Your task to perform on an android device: Go to Android settings Image 0: 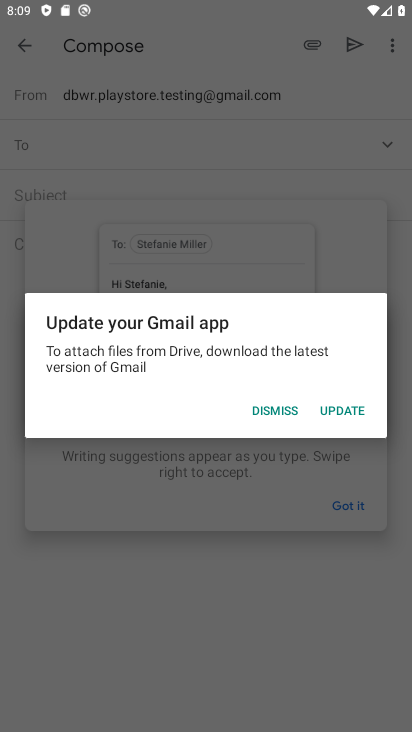
Step 0: press home button
Your task to perform on an android device: Go to Android settings Image 1: 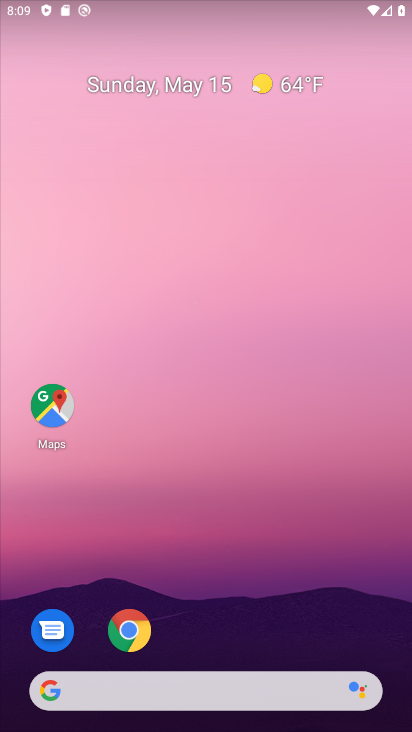
Step 1: drag from (367, 494) to (394, 24)
Your task to perform on an android device: Go to Android settings Image 2: 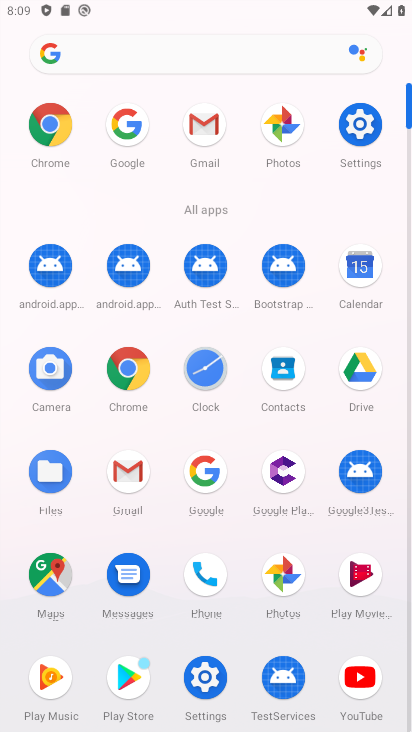
Step 2: click (359, 128)
Your task to perform on an android device: Go to Android settings Image 3: 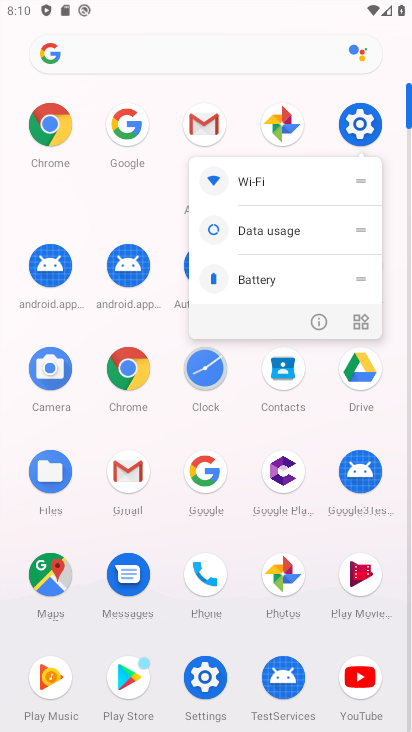
Step 3: click (360, 128)
Your task to perform on an android device: Go to Android settings Image 4: 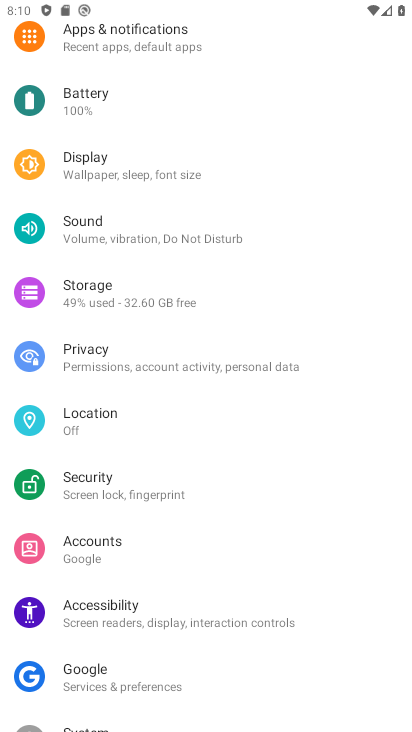
Step 4: task complete